Your task to perform on an android device: turn on priority inbox in the gmail app Image 0: 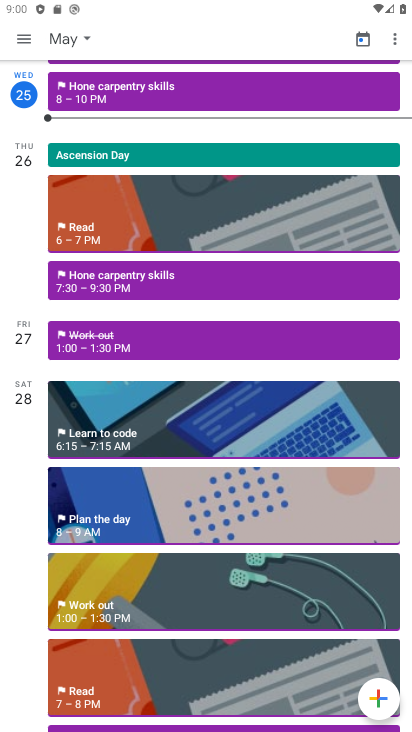
Step 0: press home button
Your task to perform on an android device: turn on priority inbox in the gmail app Image 1: 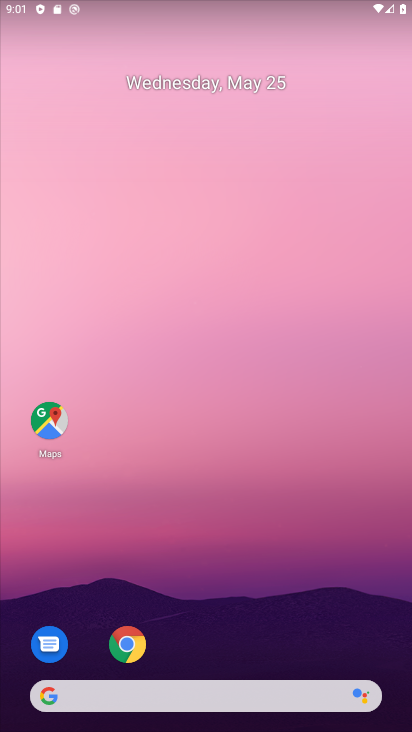
Step 1: drag from (243, 652) to (232, 5)
Your task to perform on an android device: turn on priority inbox in the gmail app Image 2: 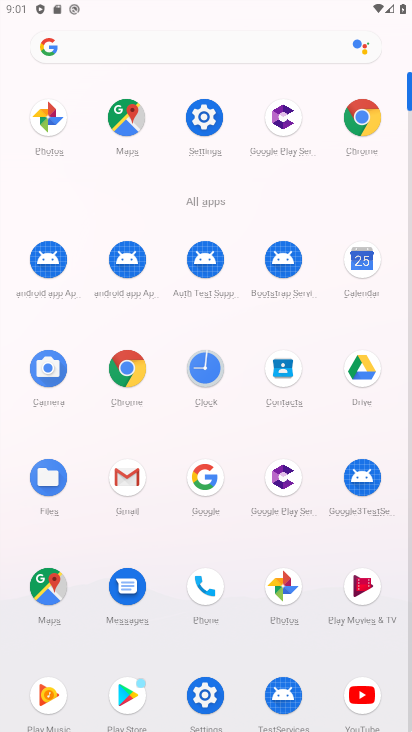
Step 2: click (124, 486)
Your task to perform on an android device: turn on priority inbox in the gmail app Image 3: 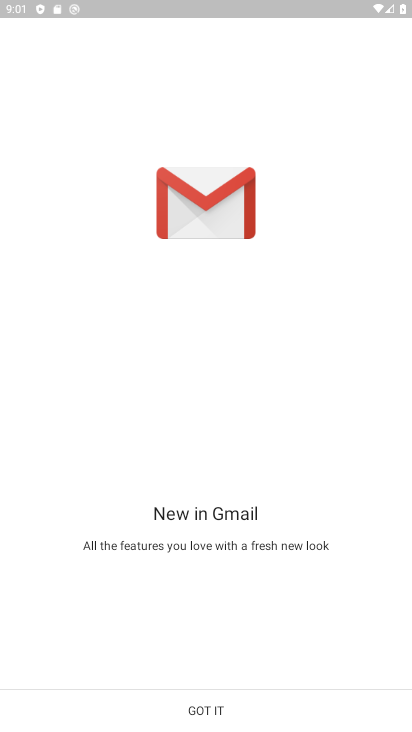
Step 3: click (216, 708)
Your task to perform on an android device: turn on priority inbox in the gmail app Image 4: 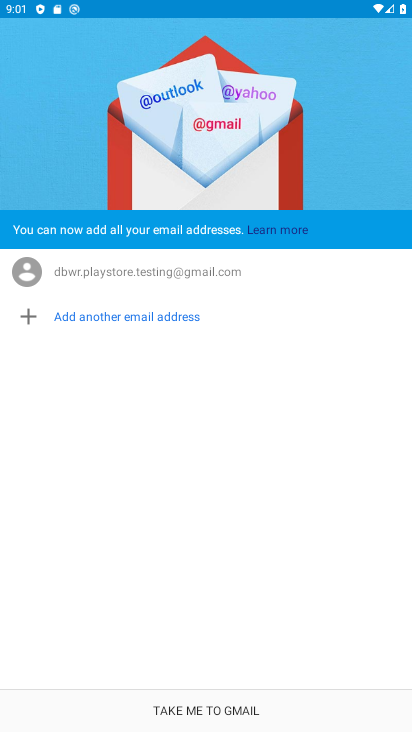
Step 4: click (216, 709)
Your task to perform on an android device: turn on priority inbox in the gmail app Image 5: 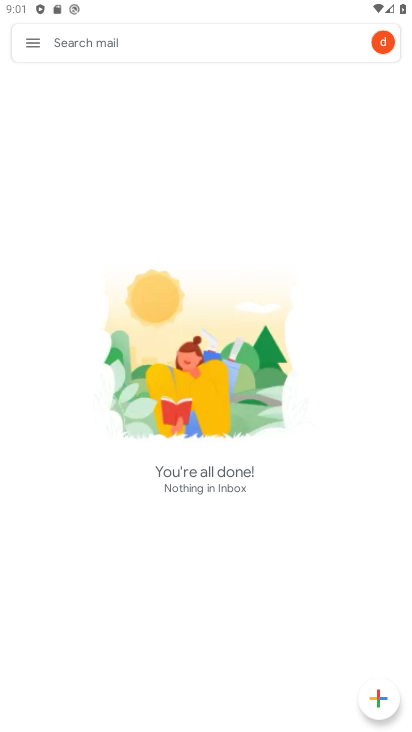
Step 5: click (28, 41)
Your task to perform on an android device: turn on priority inbox in the gmail app Image 6: 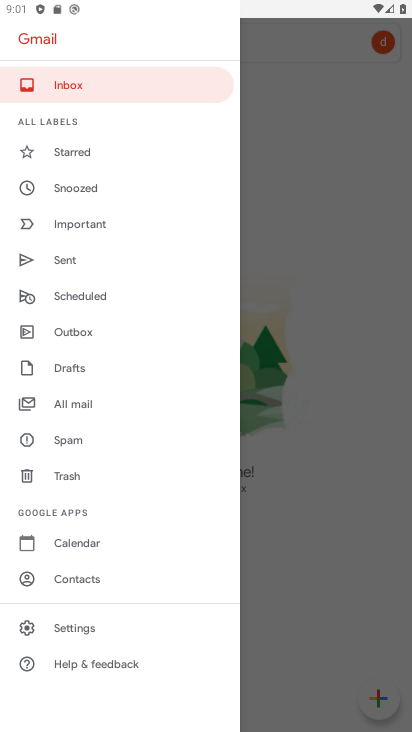
Step 6: click (73, 626)
Your task to perform on an android device: turn on priority inbox in the gmail app Image 7: 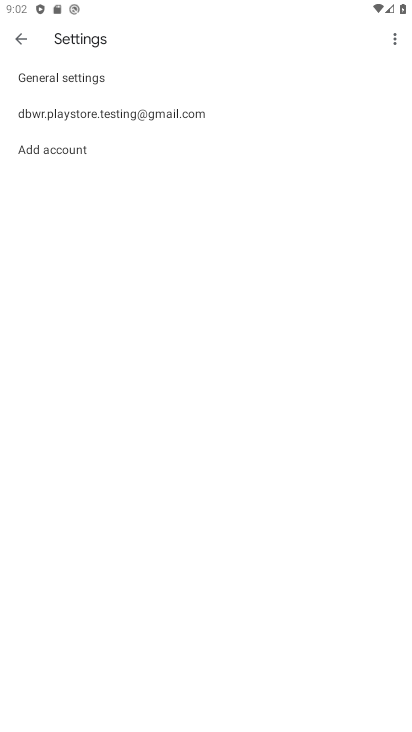
Step 7: click (90, 115)
Your task to perform on an android device: turn on priority inbox in the gmail app Image 8: 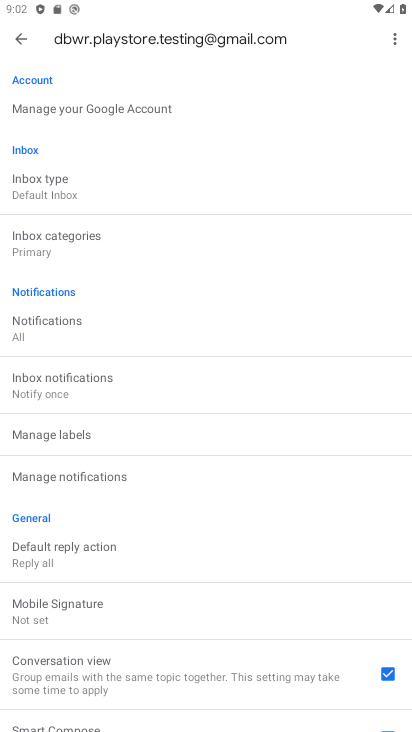
Step 8: click (40, 191)
Your task to perform on an android device: turn on priority inbox in the gmail app Image 9: 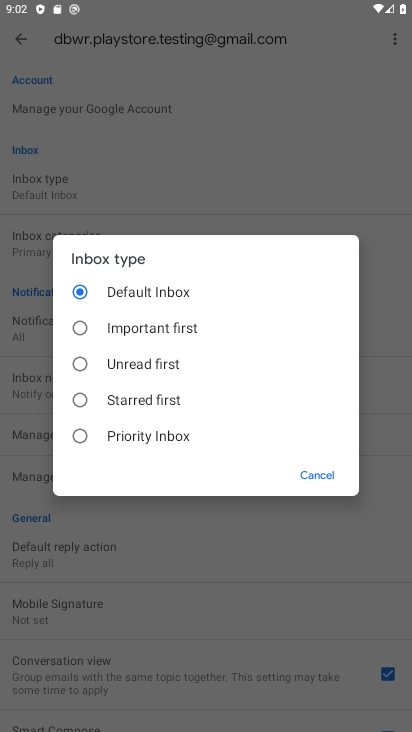
Step 9: click (77, 435)
Your task to perform on an android device: turn on priority inbox in the gmail app Image 10: 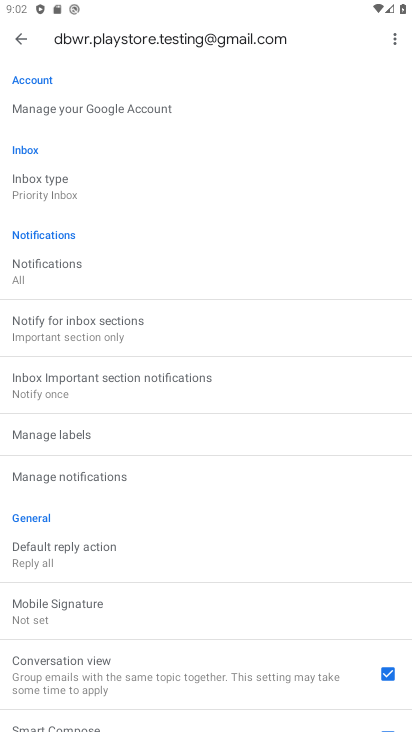
Step 10: task complete